Your task to perform on an android device: What's on my calendar tomorrow? Image 0: 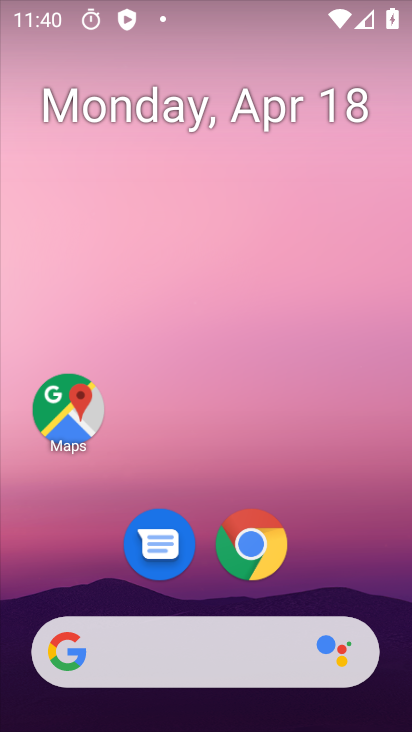
Step 0: drag from (394, 552) to (411, 178)
Your task to perform on an android device: What's on my calendar tomorrow? Image 1: 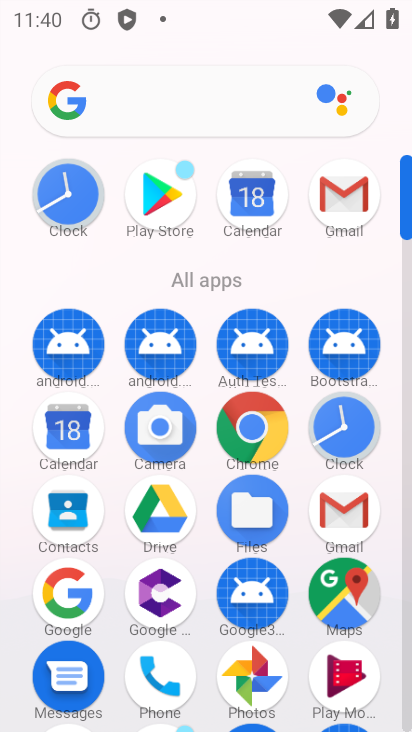
Step 1: click (244, 207)
Your task to perform on an android device: What's on my calendar tomorrow? Image 2: 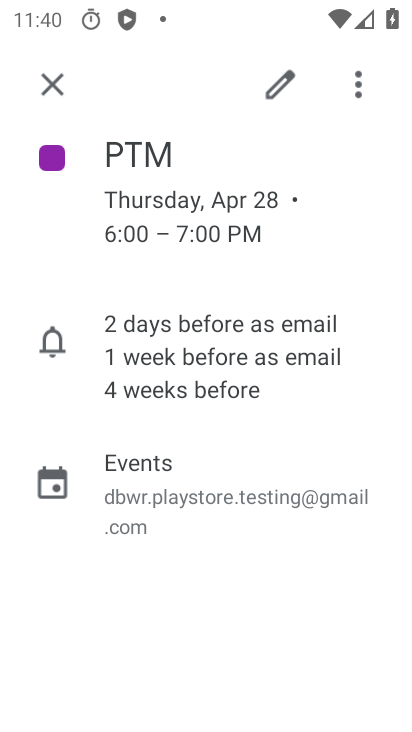
Step 2: click (50, 86)
Your task to perform on an android device: What's on my calendar tomorrow? Image 3: 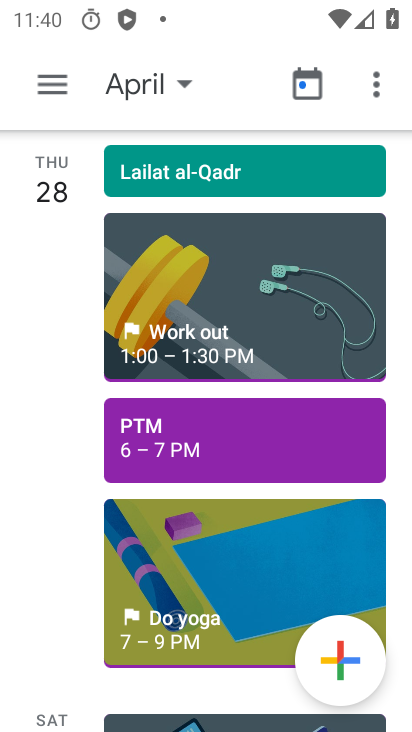
Step 3: click (193, 79)
Your task to perform on an android device: What's on my calendar tomorrow? Image 4: 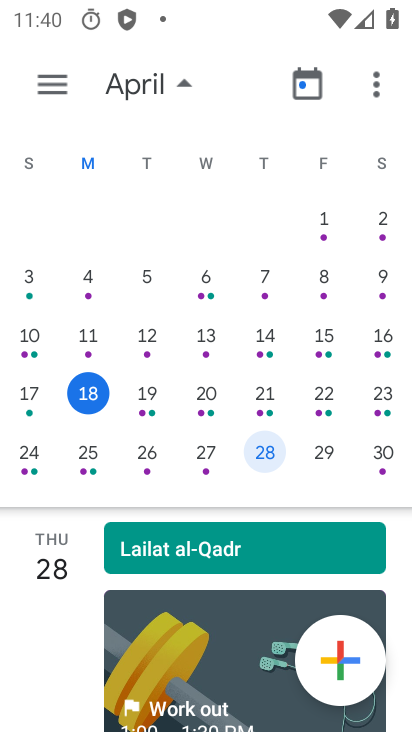
Step 4: click (145, 399)
Your task to perform on an android device: What's on my calendar tomorrow? Image 5: 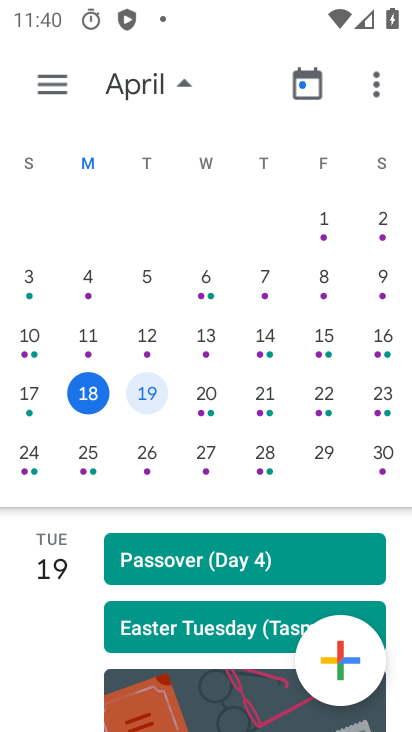
Step 5: drag from (176, 599) to (200, 380)
Your task to perform on an android device: What's on my calendar tomorrow? Image 6: 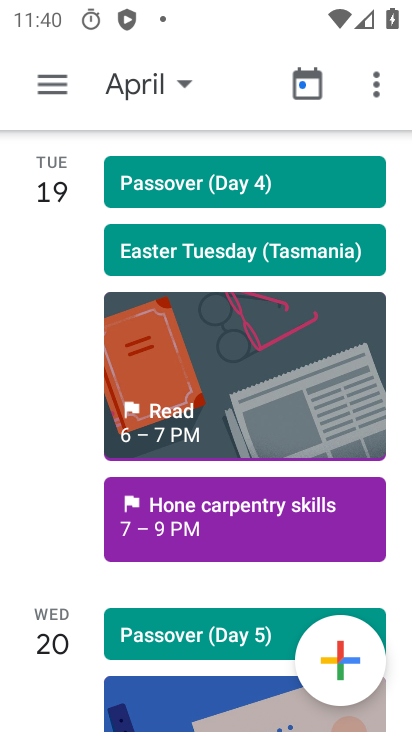
Step 6: click (188, 191)
Your task to perform on an android device: What's on my calendar tomorrow? Image 7: 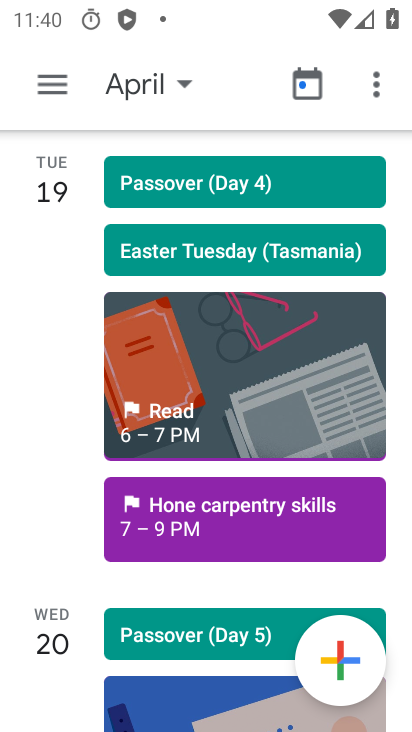
Step 7: click (191, 519)
Your task to perform on an android device: What's on my calendar tomorrow? Image 8: 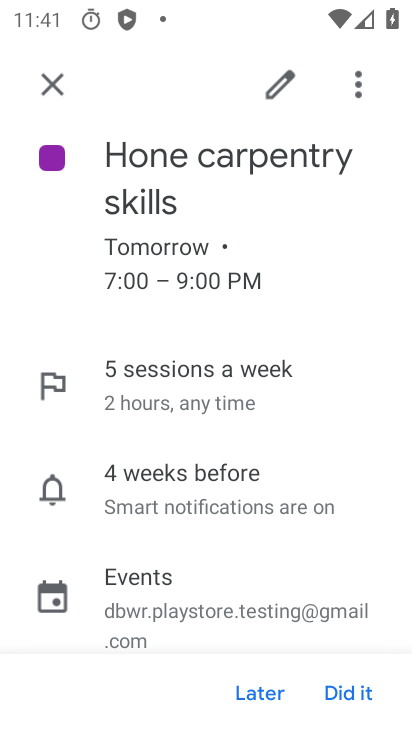
Step 8: task complete